Your task to perform on an android device: Go to Amazon Image 0: 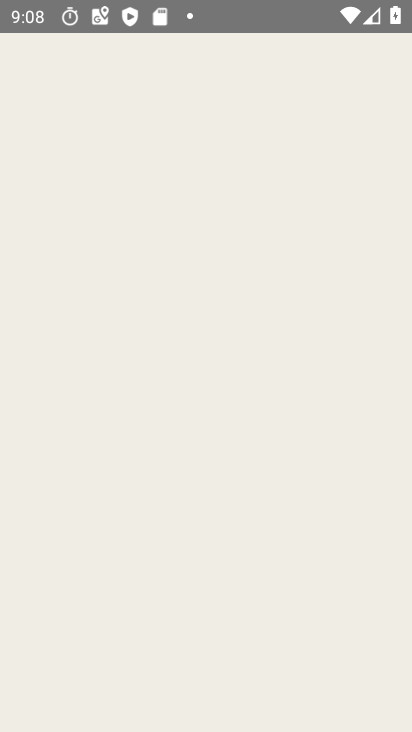
Step 0: drag from (322, 619) to (322, 538)
Your task to perform on an android device: Go to Amazon Image 1: 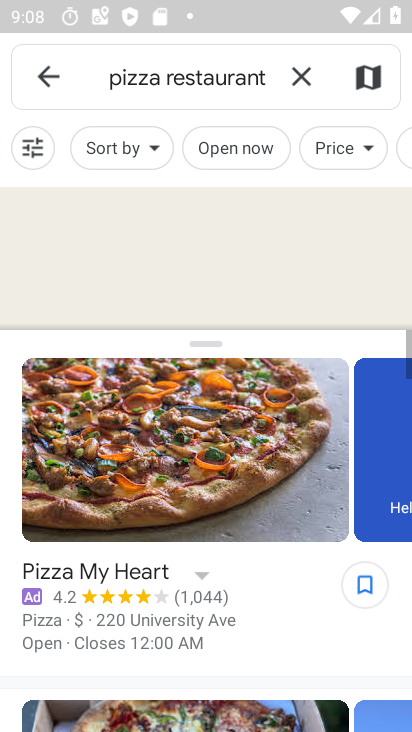
Step 1: press home button
Your task to perform on an android device: Go to Amazon Image 2: 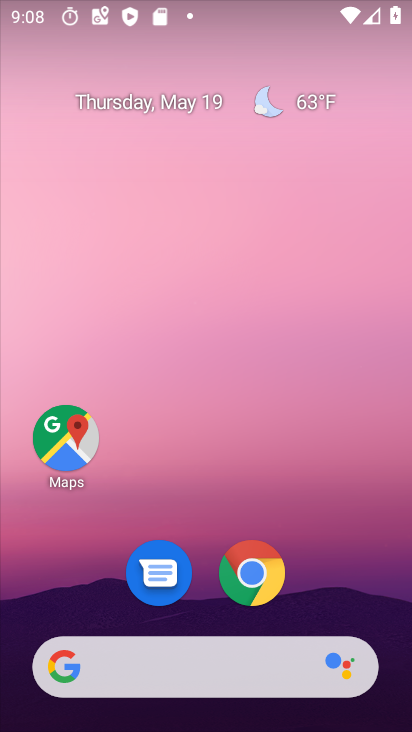
Step 2: click (257, 575)
Your task to perform on an android device: Go to Amazon Image 3: 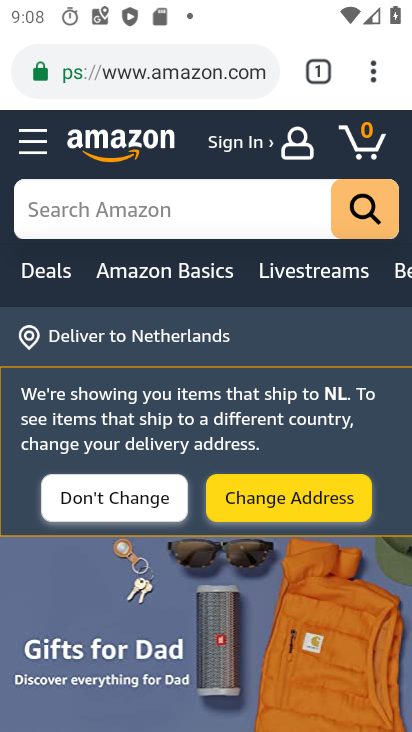
Step 3: task complete